Your task to perform on an android device: Go to Amazon Image 0: 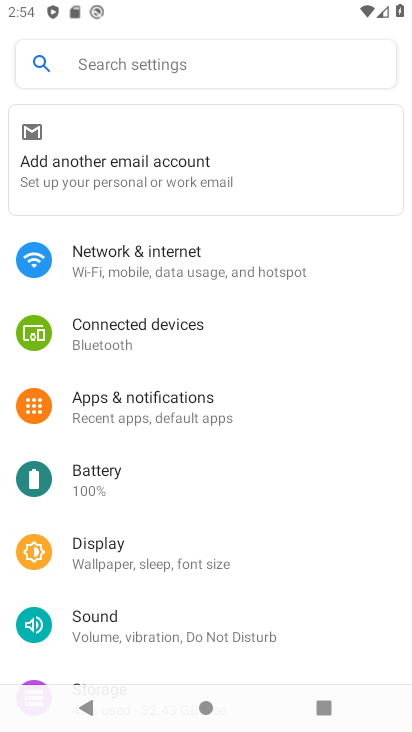
Step 0: press home button
Your task to perform on an android device: Go to Amazon Image 1: 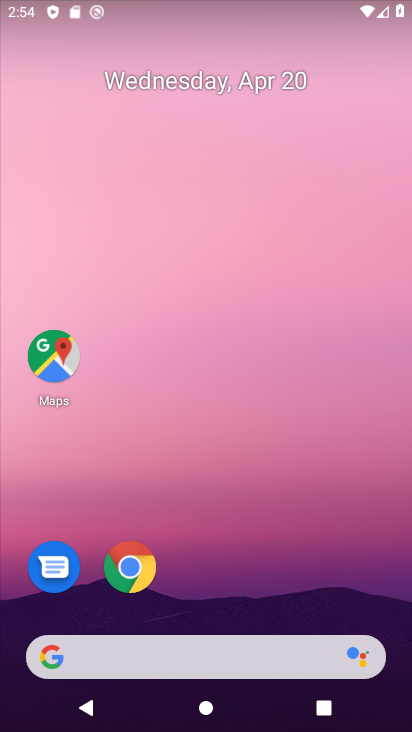
Step 1: click (142, 567)
Your task to perform on an android device: Go to Amazon Image 2: 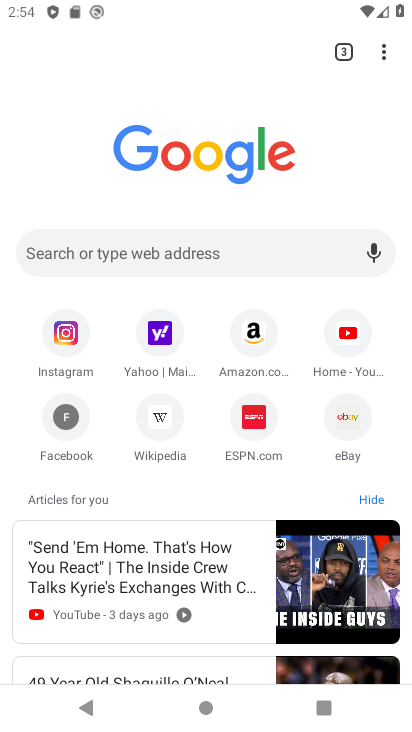
Step 2: click (259, 338)
Your task to perform on an android device: Go to Amazon Image 3: 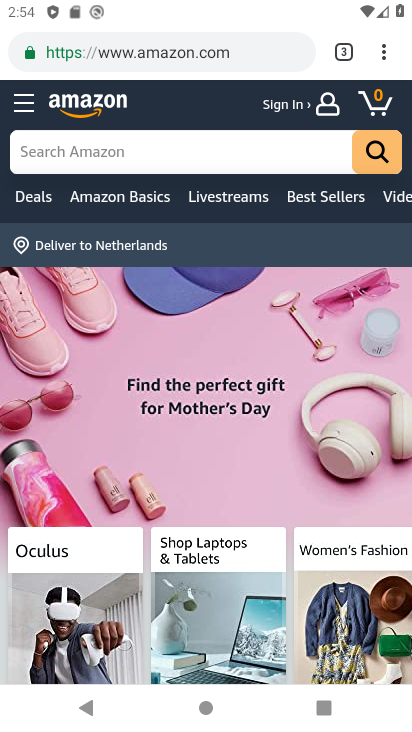
Step 3: task complete